Your task to perform on an android device: turn on translation in the chrome app Image 0: 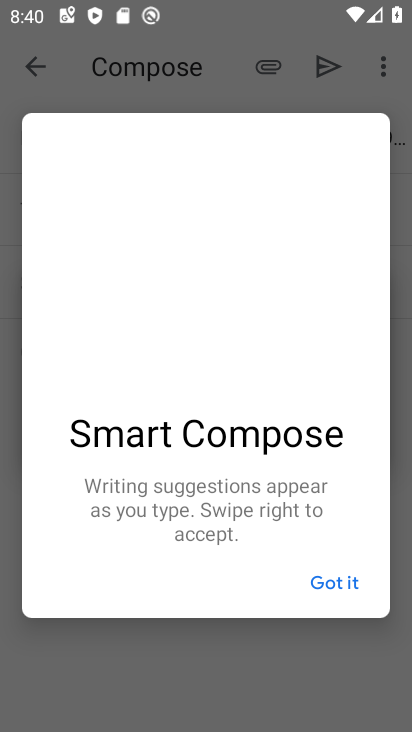
Step 0: press home button
Your task to perform on an android device: turn on translation in the chrome app Image 1: 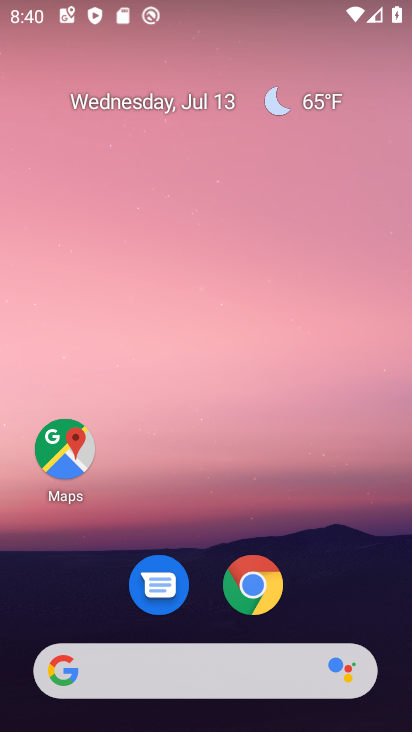
Step 1: click (255, 588)
Your task to perform on an android device: turn on translation in the chrome app Image 2: 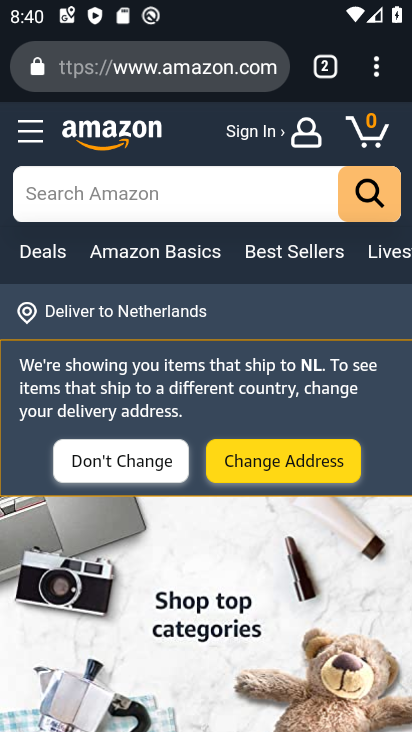
Step 2: click (375, 77)
Your task to perform on an android device: turn on translation in the chrome app Image 3: 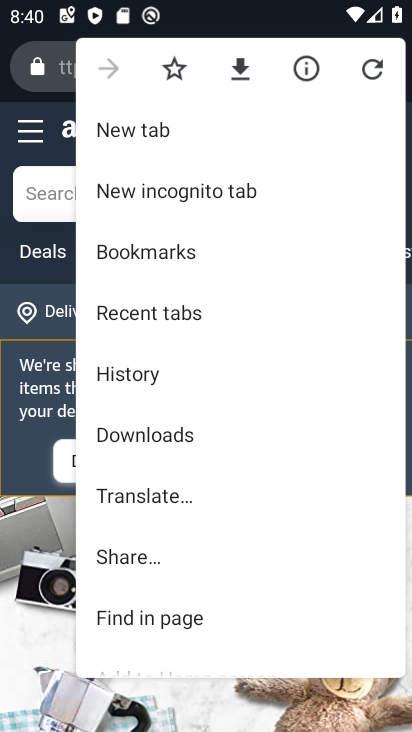
Step 3: drag from (218, 484) to (249, 75)
Your task to perform on an android device: turn on translation in the chrome app Image 4: 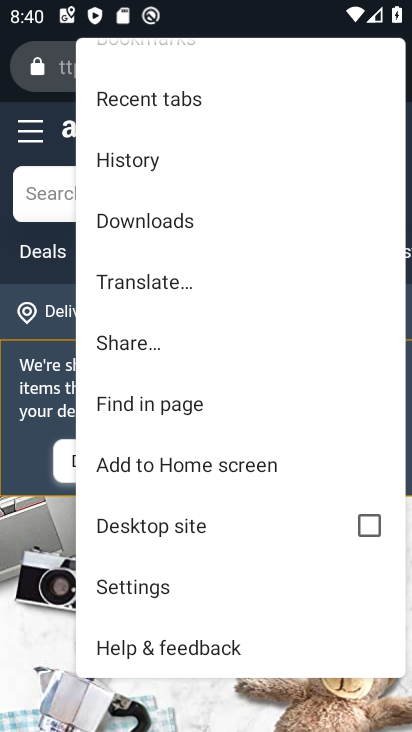
Step 4: click (165, 587)
Your task to perform on an android device: turn on translation in the chrome app Image 5: 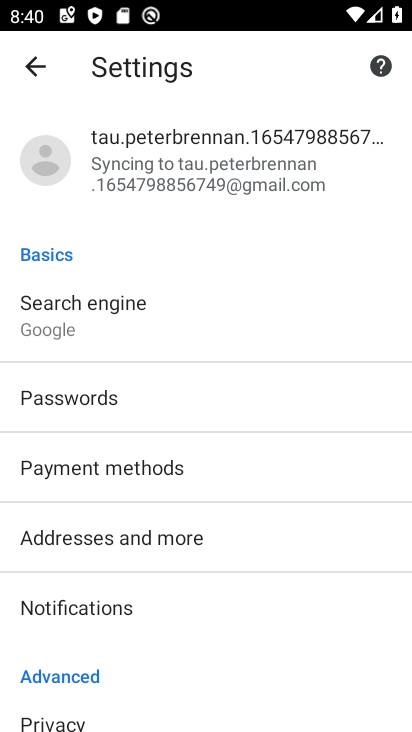
Step 5: drag from (236, 538) to (262, 14)
Your task to perform on an android device: turn on translation in the chrome app Image 6: 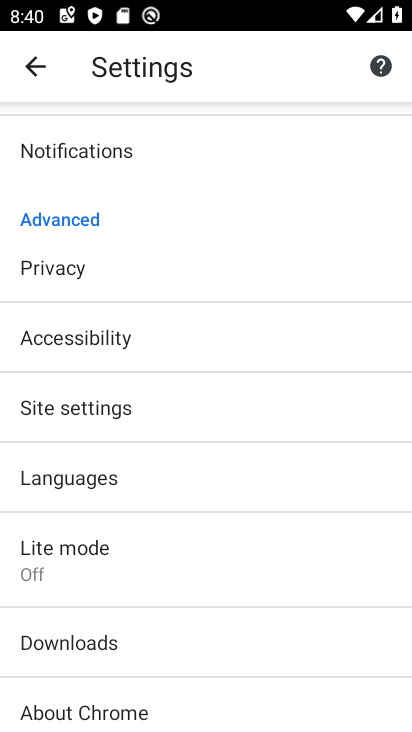
Step 6: click (102, 476)
Your task to perform on an android device: turn on translation in the chrome app Image 7: 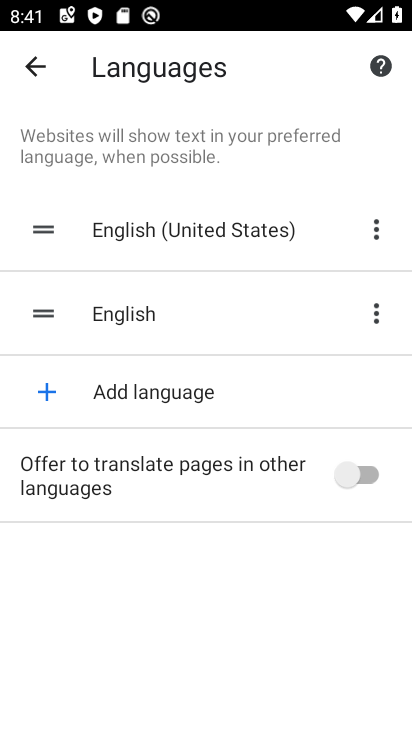
Step 7: click (369, 473)
Your task to perform on an android device: turn on translation in the chrome app Image 8: 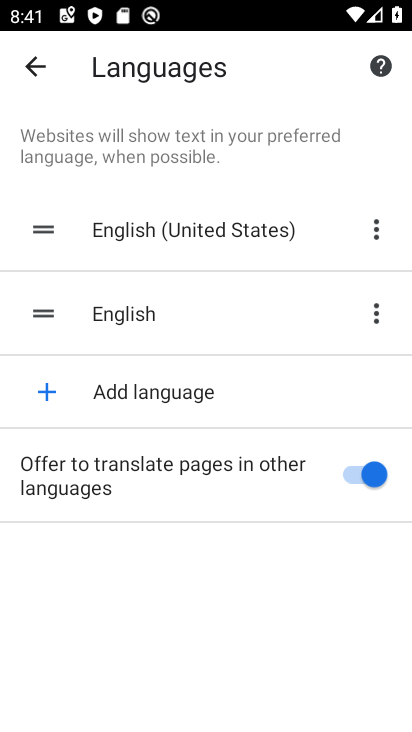
Step 8: task complete